Your task to perform on an android device: Go to network settings Image 0: 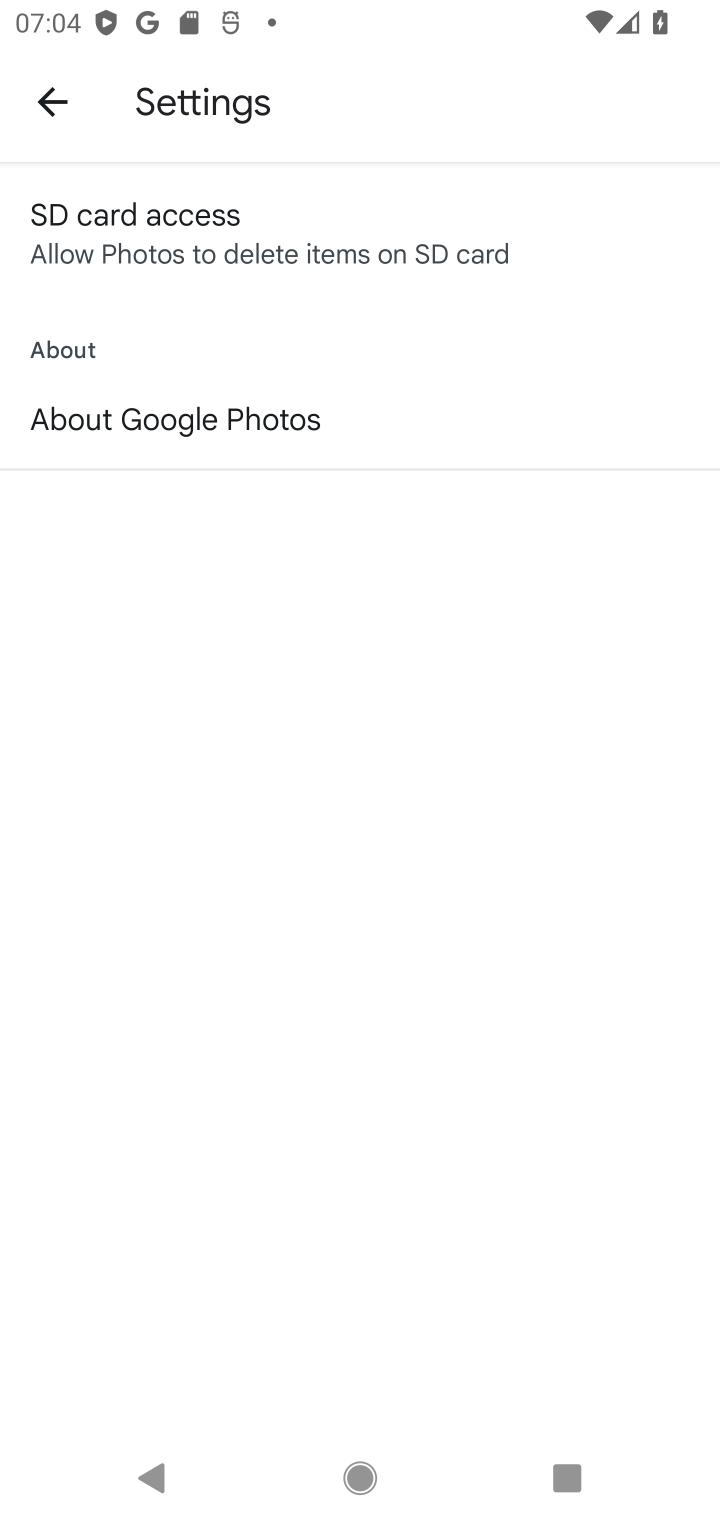
Step 0: press home button
Your task to perform on an android device: Go to network settings Image 1: 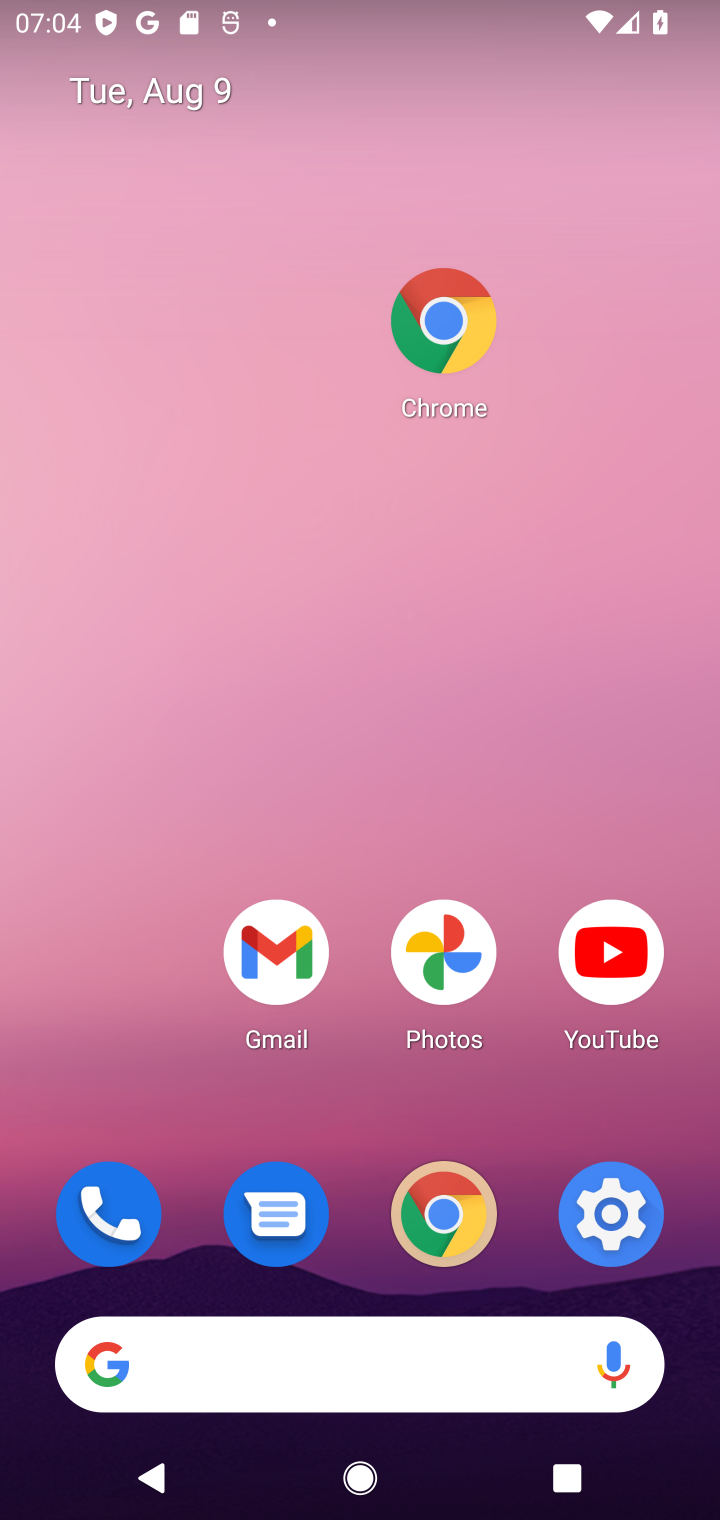
Step 1: click (610, 1216)
Your task to perform on an android device: Go to network settings Image 2: 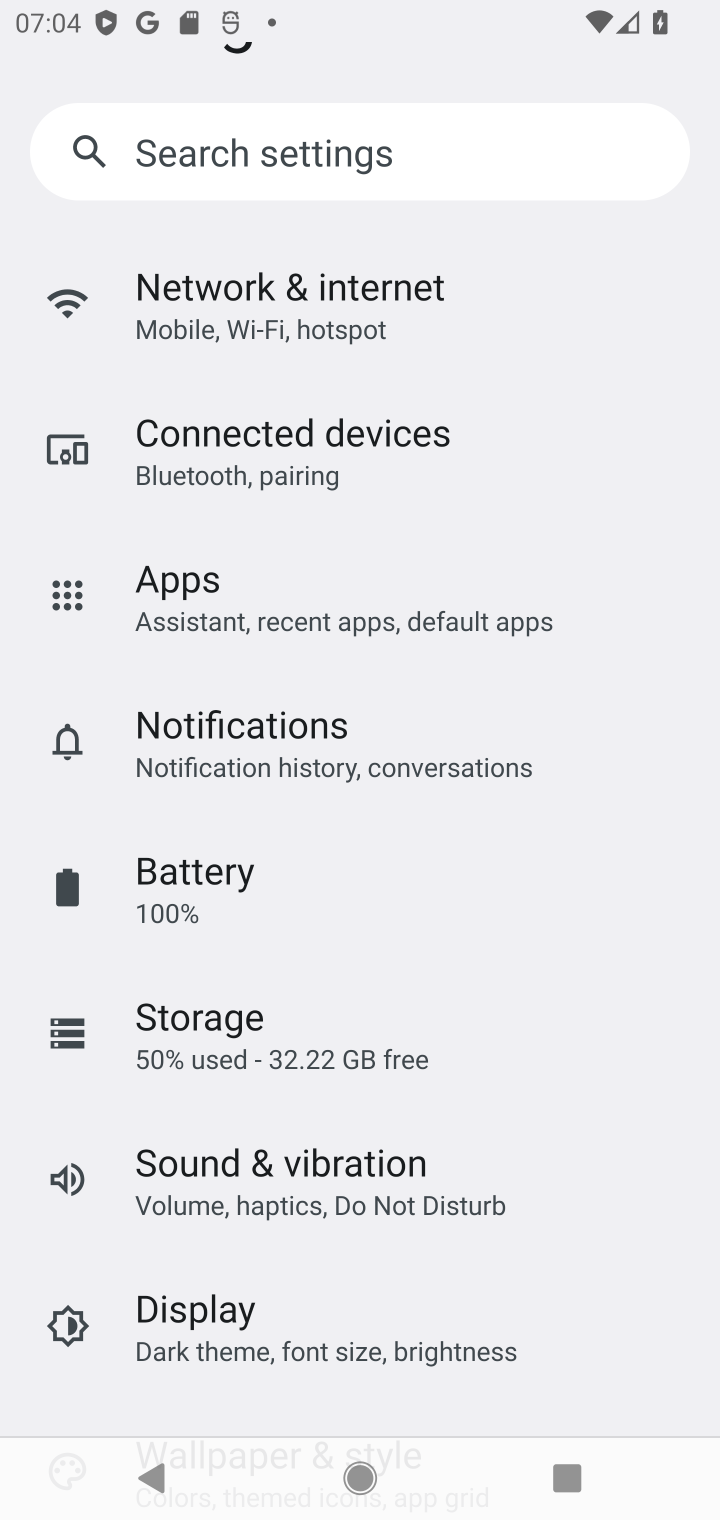
Step 2: click (299, 310)
Your task to perform on an android device: Go to network settings Image 3: 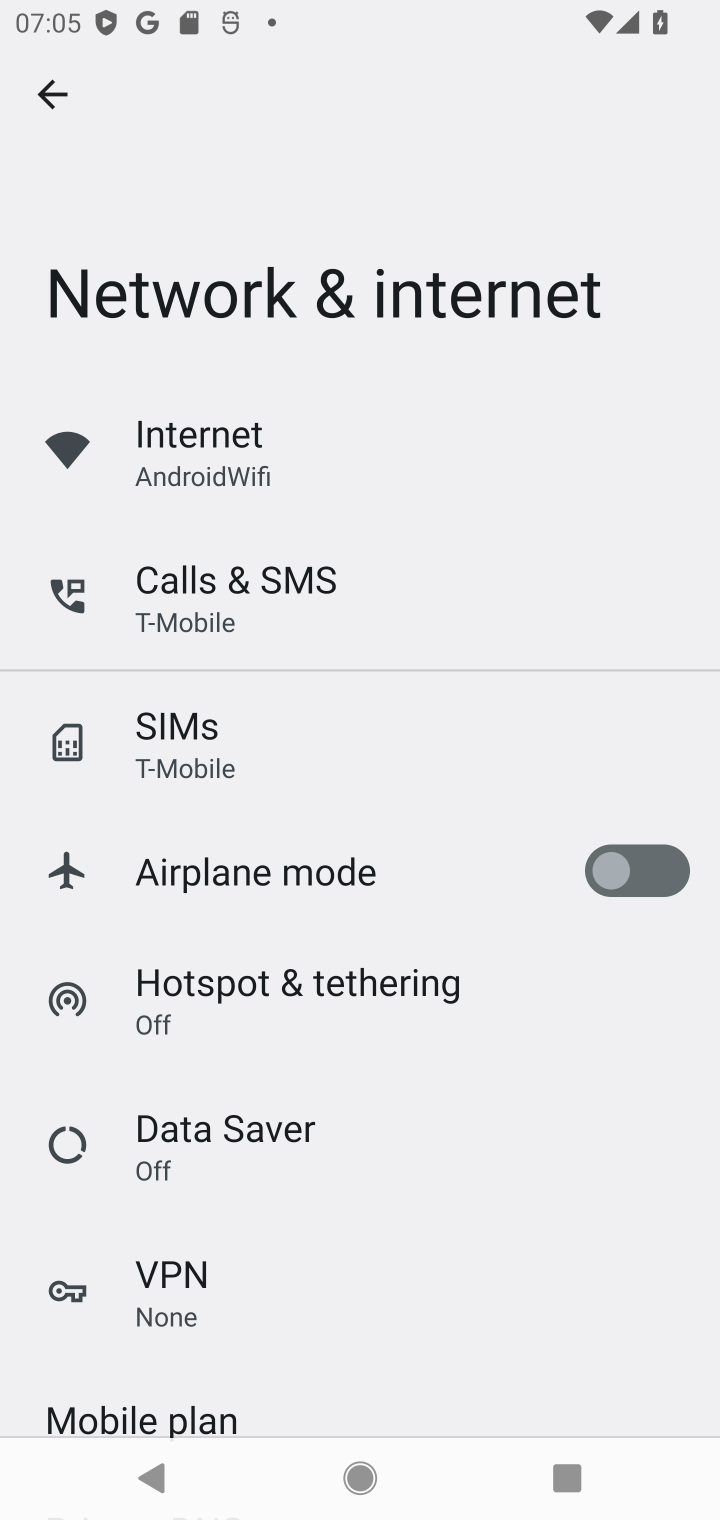
Step 3: task complete